Your task to perform on an android device: change the clock display to analog Image 0: 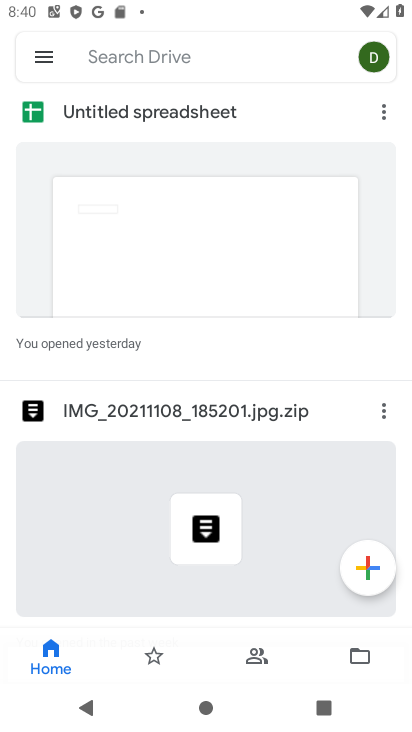
Step 0: press back button
Your task to perform on an android device: change the clock display to analog Image 1: 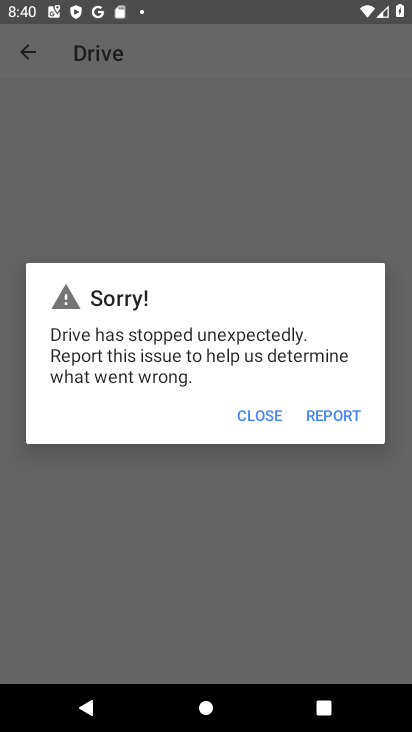
Step 1: press home button
Your task to perform on an android device: change the clock display to analog Image 2: 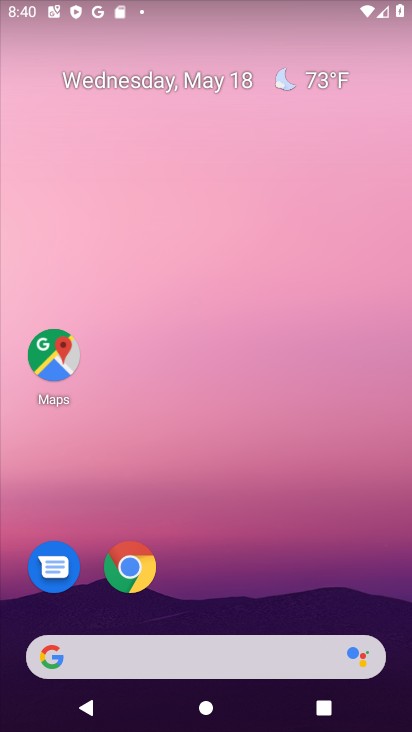
Step 2: drag from (234, 269) to (234, 36)
Your task to perform on an android device: change the clock display to analog Image 3: 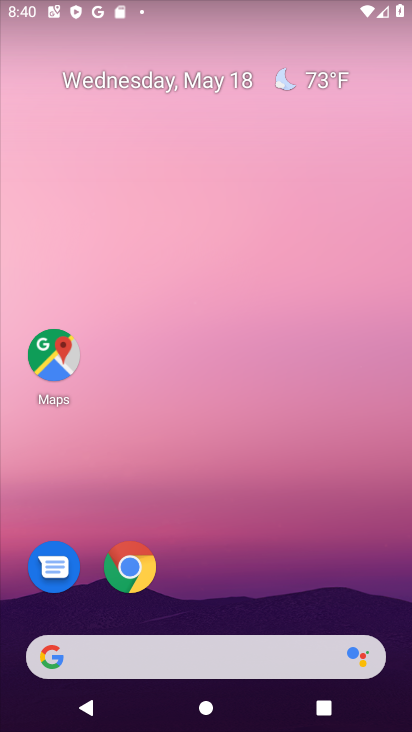
Step 3: drag from (304, 501) to (280, 19)
Your task to perform on an android device: change the clock display to analog Image 4: 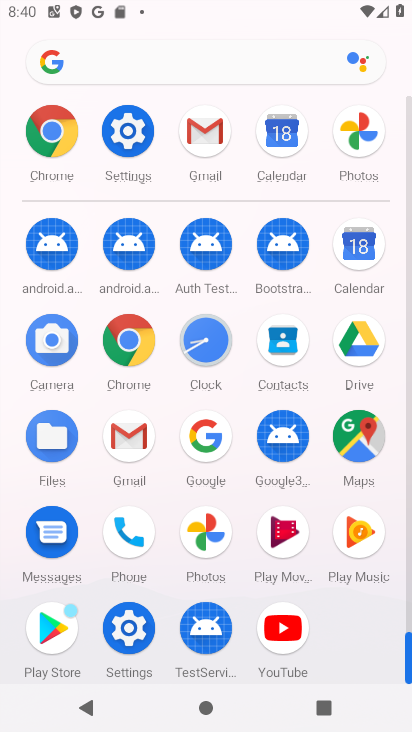
Step 4: click (205, 340)
Your task to perform on an android device: change the clock display to analog Image 5: 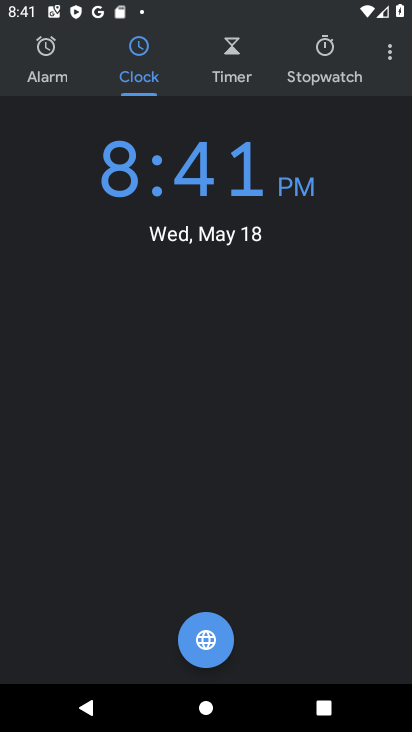
Step 5: drag from (397, 47) to (303, 108)
Your task to perform on an android device: change the clock display to analog Image 6: 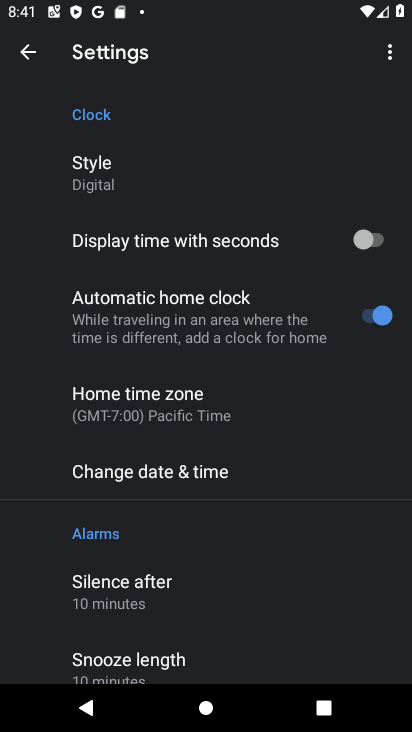
Step 6: click (156, 171)
Your task to perform on an android device: change the clock display to analog Image 7: 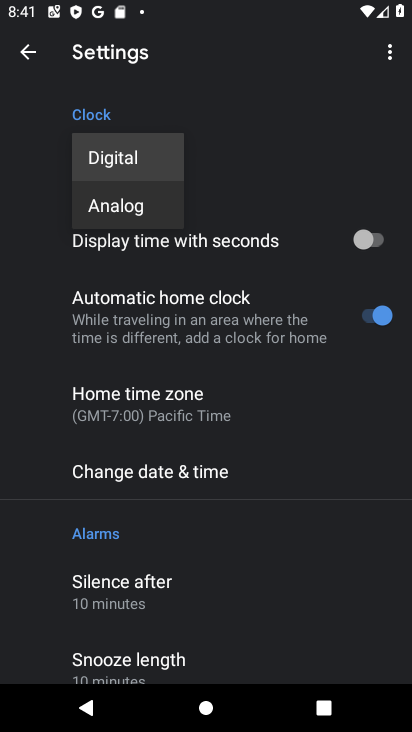
Step 7: click (129, 217)
Your task to perform on an android device: change the clock display to analog Image 8: 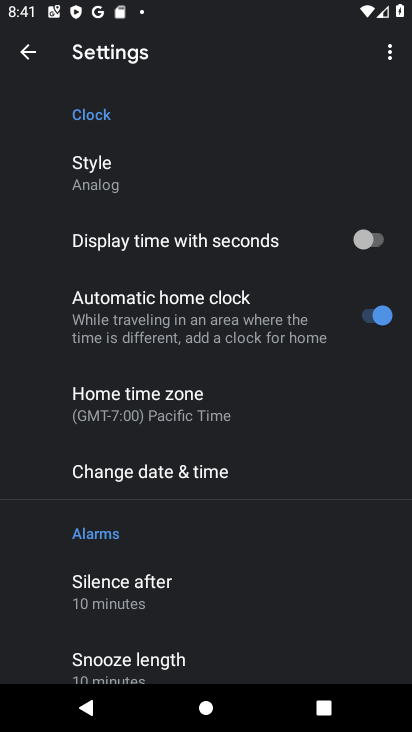
Step 8: task complete